Your task to perform on an android device: check data usage Image 0: 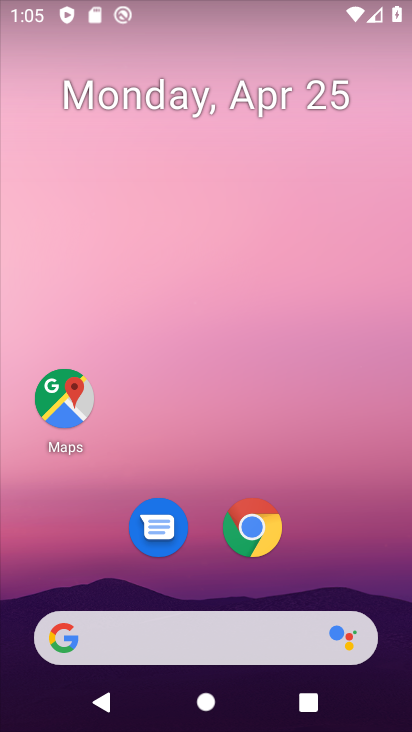
Step 0: drag from (405, 554) to (249, 66)
Your task to perform on an android device: check data usage Image 1: 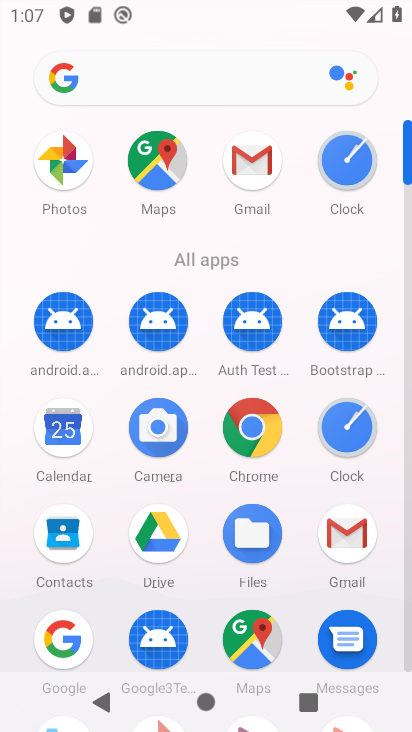
Step 1: click (409, 669)
Your task to perform on an android device: check data usage Image 2: 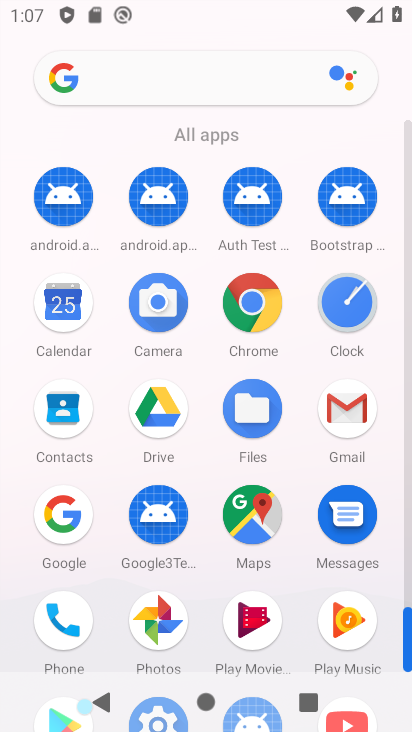
Step 2: drag from (294, 596) to (307, 200)
Your task to perform on an android device: check data usage Image 3: 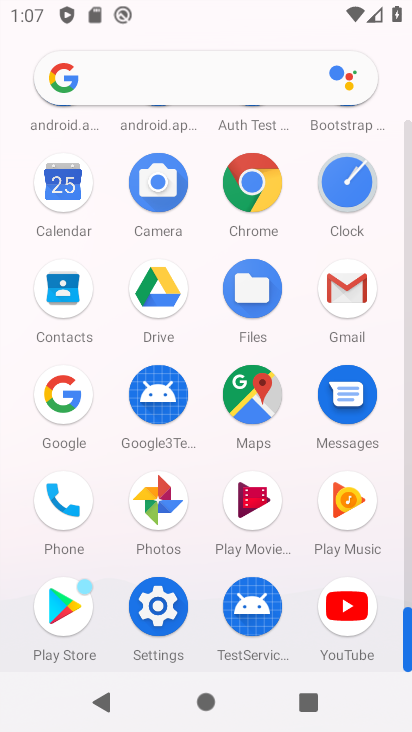
Step 3: click (163, 598)
Your task to perform on an android device: check data usage Image 4: 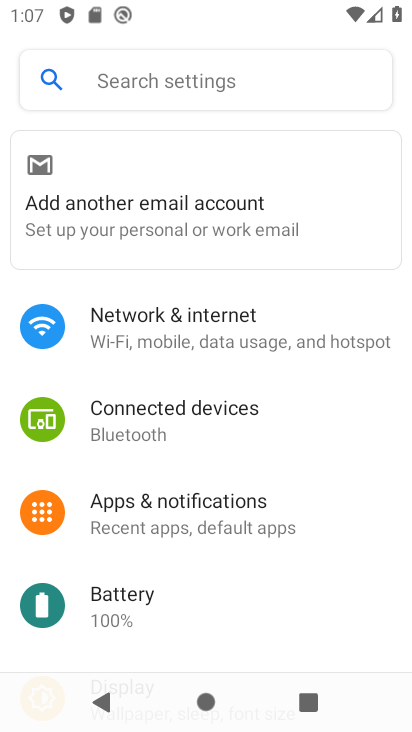
Step 4: click (166, 355)
Your task to perform on an android device: check data usage Image 5: 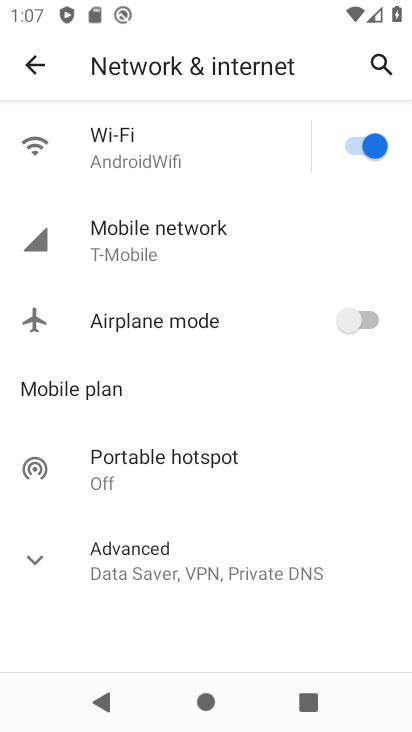
Step 5: click (189, 234)
Your task to perform on an android device: check data usage Image 6: 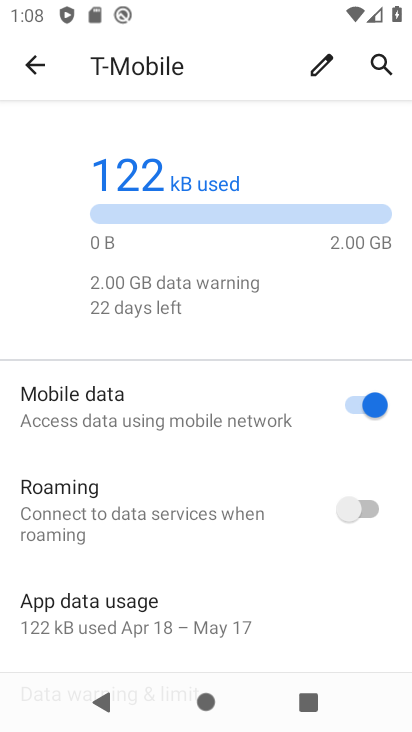
Step 6: click (132, 586)
Your task to perform on an android device: check data usage Image 7: 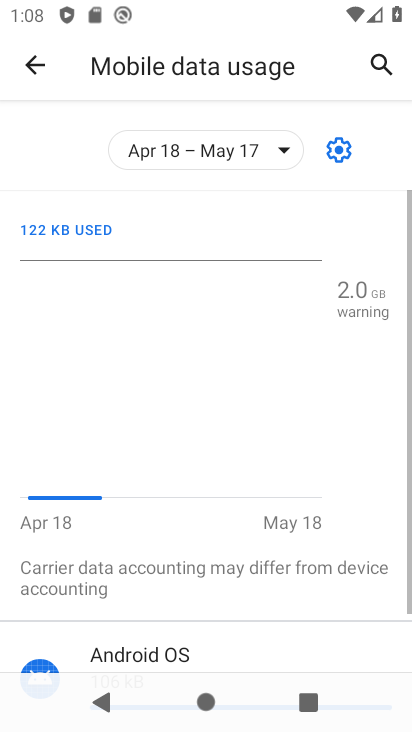
Step 7: task complete